Your task to perform on an android device: open app "Google Find My Device" (install if not already installed) Image 0: 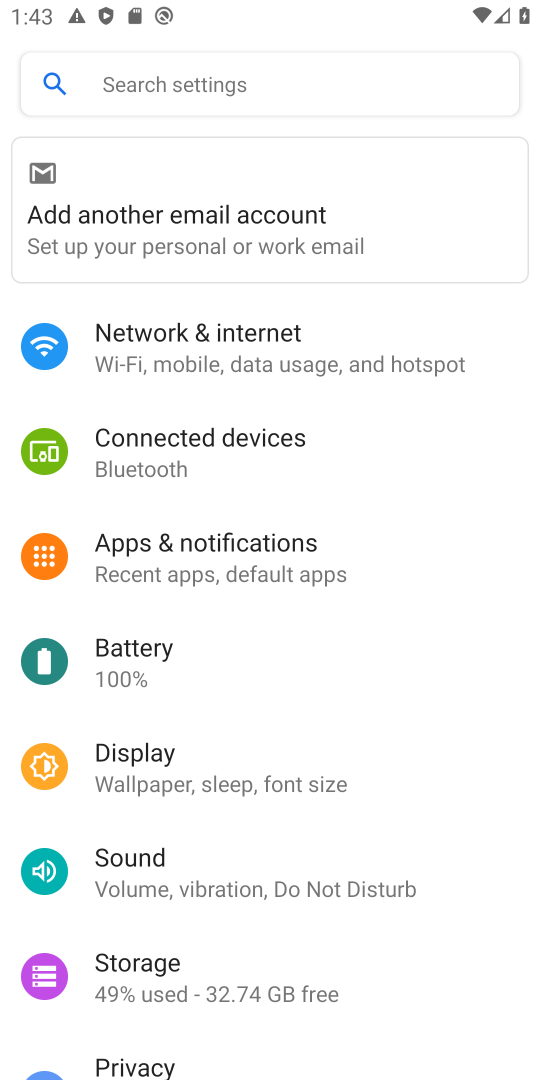
Step 0: press home button
Your task to perform on an android device: open app "Google Find My Device" (install if not already installed) Image 1: 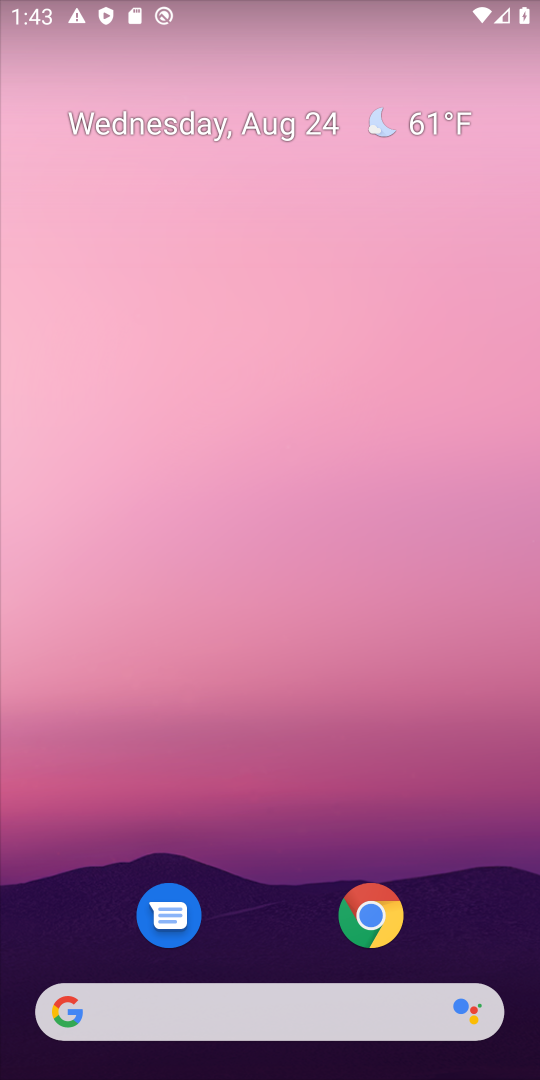
Step 1: drag from (257, 854) to (267, 331)
Your task to perform on an android device: open app "Google Find My Device" (install if not already installed) Image 2: 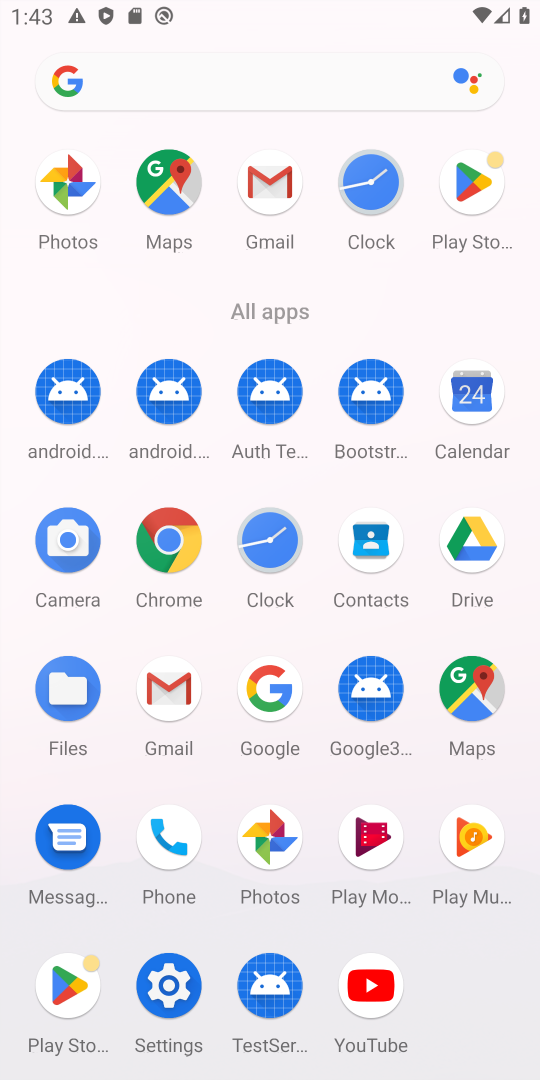
Step 2: click (483, 194)
Your task to perform on an android device: open app "Google Find My Device" (install if not already installed) Image 3: 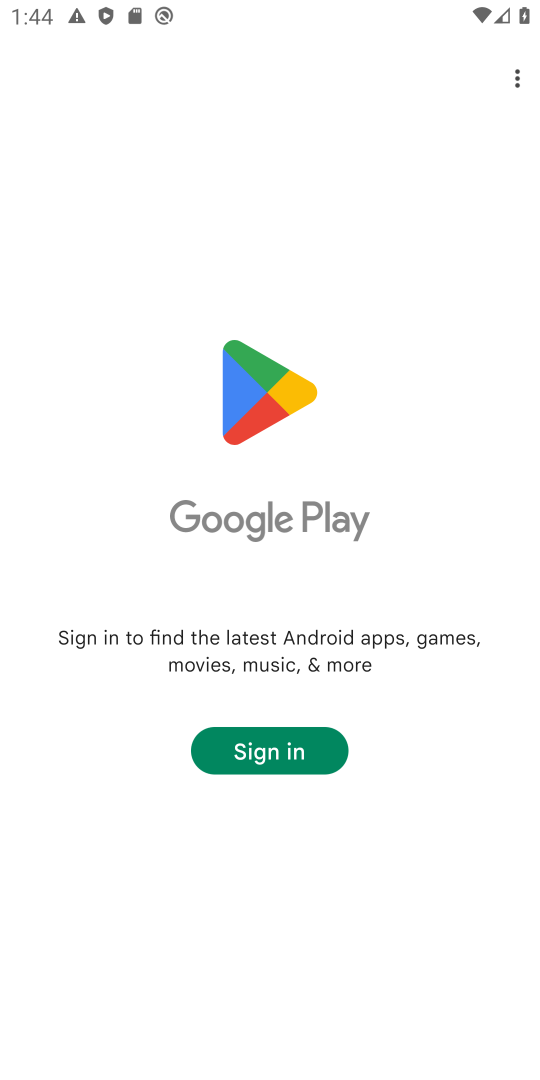
Step 3: task complete